Your task to perform on an android device: Open internet settings Image 0: 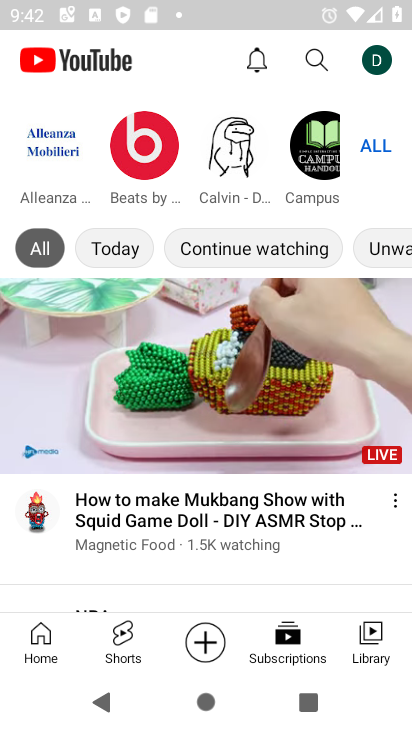
Step 0: press back button
Your task to perform on an android device: Open internet settings Image 1: 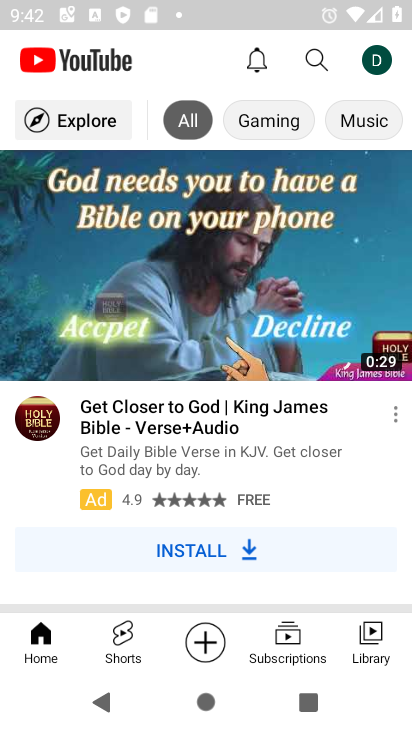
Step 1: press home button
Your task to perform on an android device: Open internet settings Image 2: 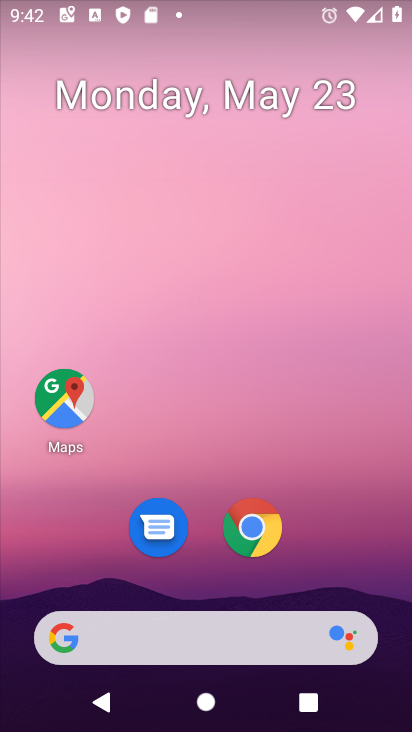
Step 2: drag from (361, 563) to (250, 0)
Your task to perform on an android device: Open internet settings Image 3: 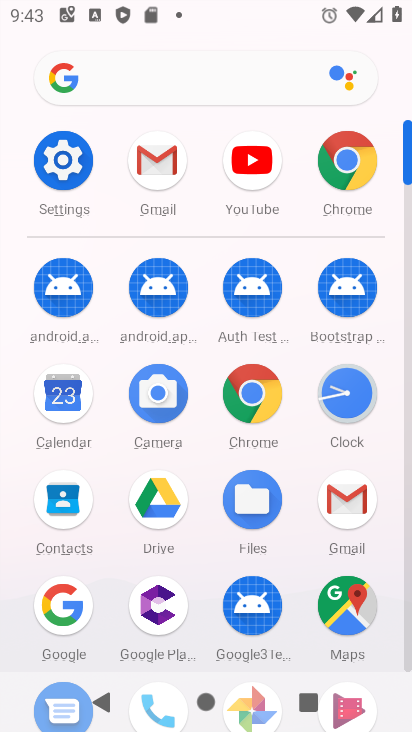
Step 3: click (61, 156)
Your task to perform on an android device: Open internet settings Image 4: 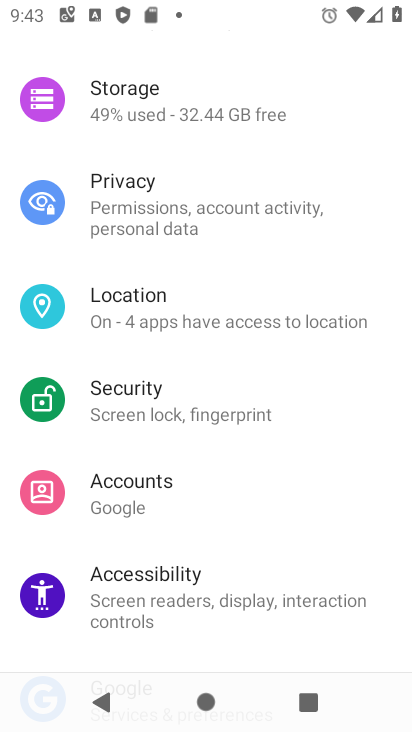
Step 4: drag from (277, 158) to (271, 594)
Your task to perform on an android device: Open internet settings Image 5: 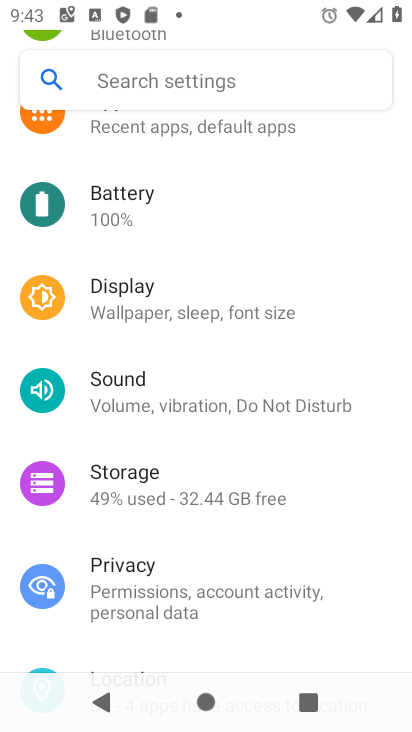
Step 5: drag from (249, 188) to (295, 625)
Your task to perform on an android device: Open internet settings Image 6: 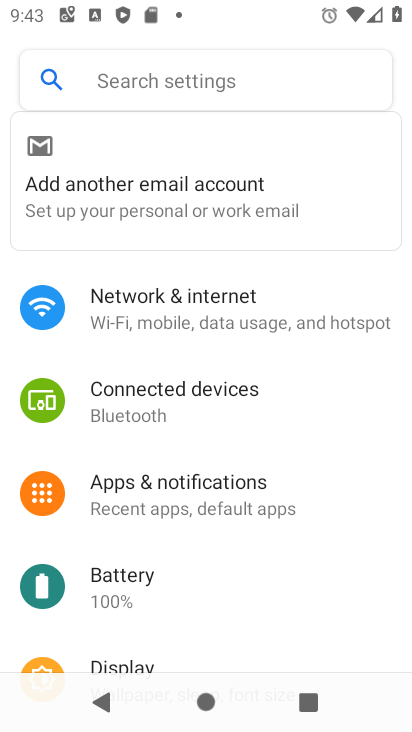
Step 6: click (229, 310)
Your task to perform on an android device: Open internet settings Image 7: 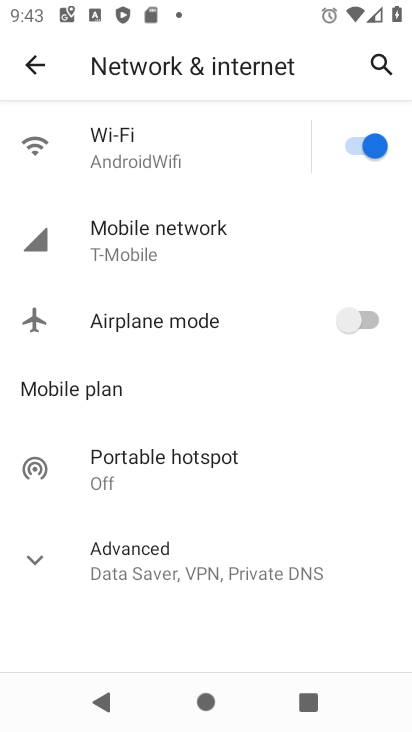
Step 7: click (35, 550)
Your task to perform on an android device: Open internet settings Image 8: 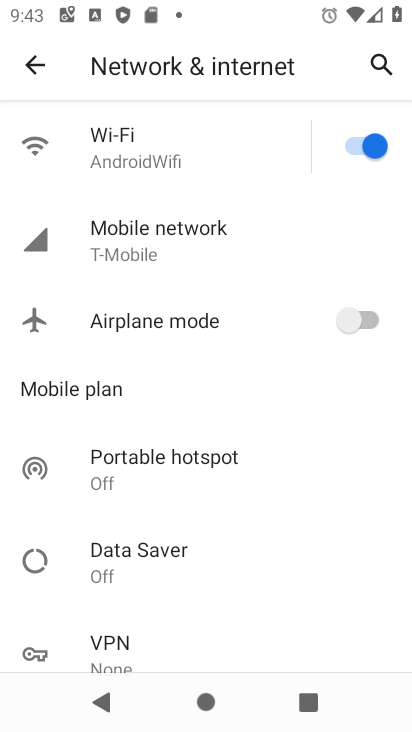
Step 8: task complete